Your task to perform on an android device: toggle notifications settings in the gmail app Image 0: 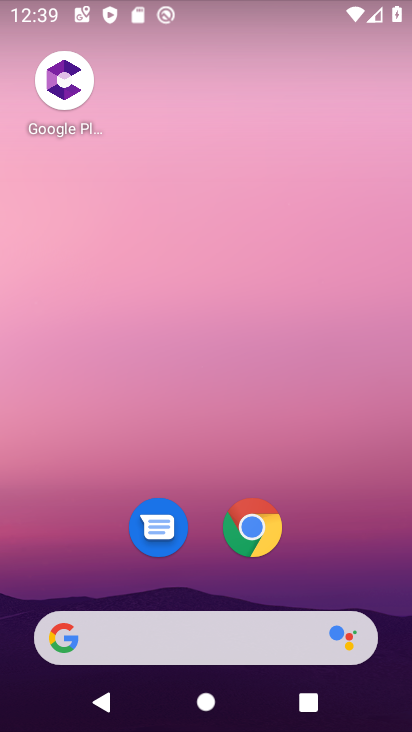
Step 0: drag from (351, 559) to (359, 58)
Your task to perform on an android device: toggle notifications settings in the gmail app Image 1: 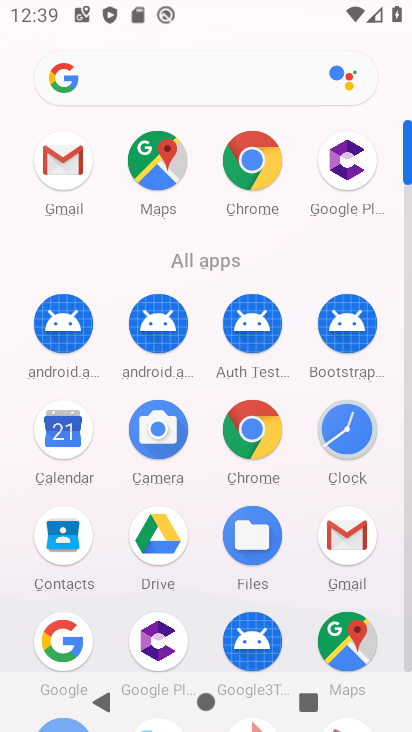
Step 1: click (364, 557)
Your task to perform on an android device: toggle notifications settings in the gmail app Image 2: 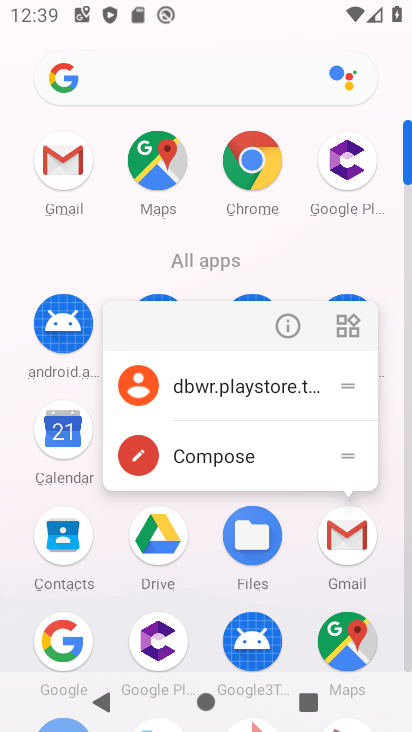
Step 2: click (356, 526)
Your task to perform on an android device: toggle notifications settings in the gmail app Image 3: 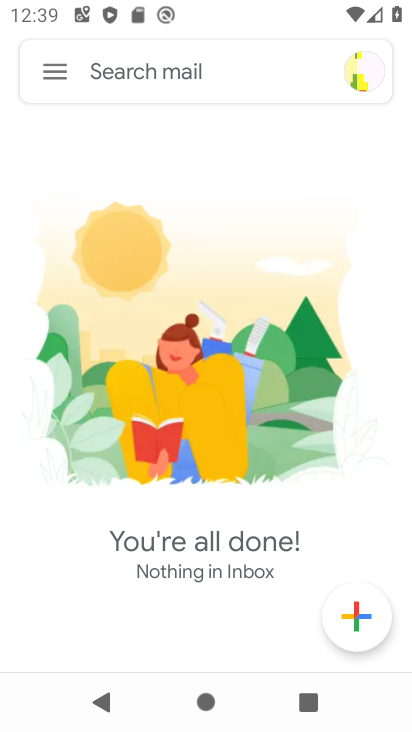
Step 3: click (49, 78)
Your task to perform on an android device: toggle notifications settings in the gmail app Image 4: 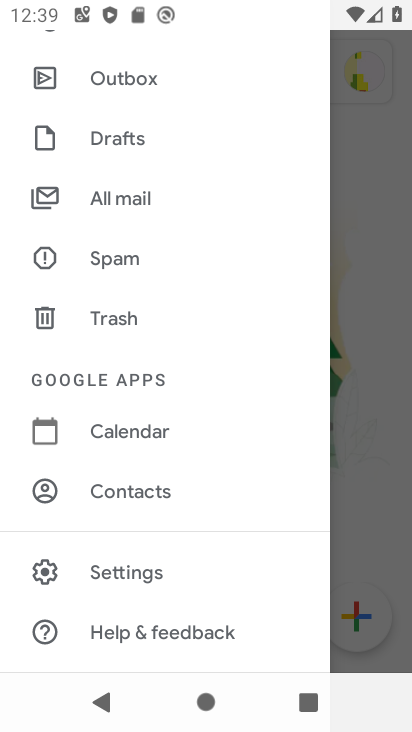
Step 4: drag from (266, 280) to (275, 434)
Your task to perform on an android device: toggle notifications settings in the gmail app Image 5: 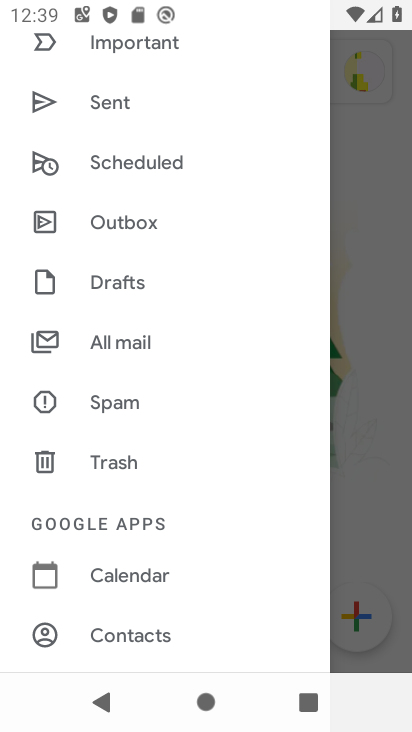
Step 5: drag from (286, 226) to (260, 431)
Your task to perform on an android device: toggle notifications settings in the gmail app Image 6: 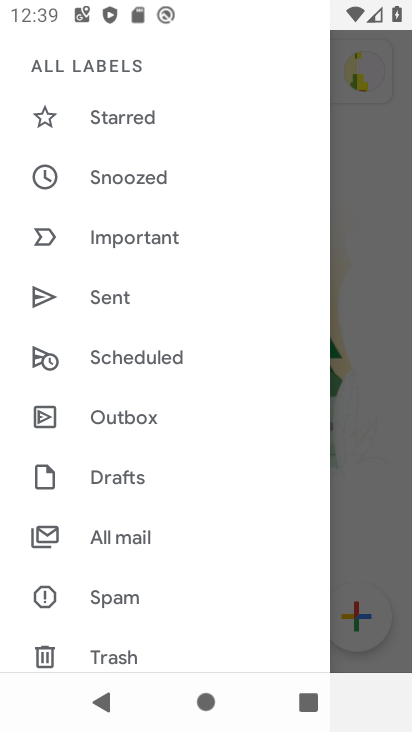
Step 6: drag from (263, 187) to (261, 406)
Your task to perform on an android device: toggle notifications settings in the gmail app Image 7: 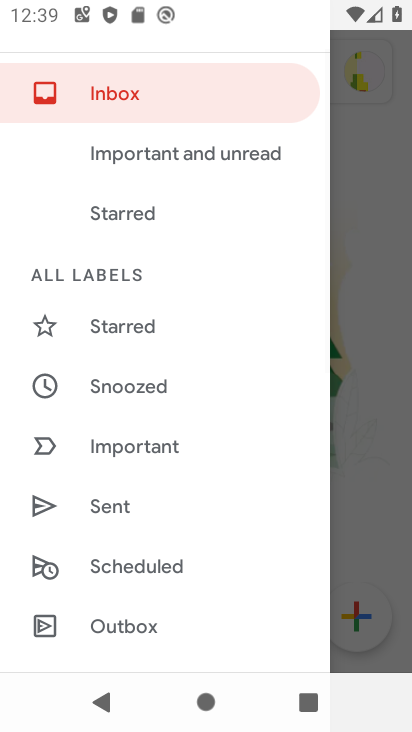
Step 7: drag from (283, 207) to (278, 410)
Your task to perform on an android device: toggle notifications settings in the gmail app Image 8: 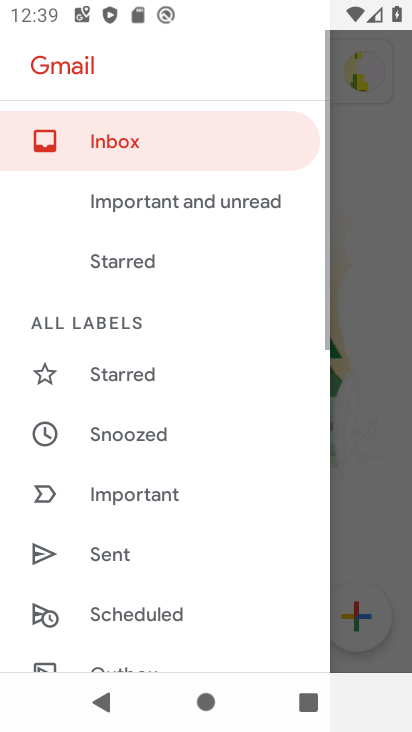
Step 8: drag from (265, 469) to (285, 274)
Your task to perform on an android device: toggle notifications settings in the gmail app Image 9: 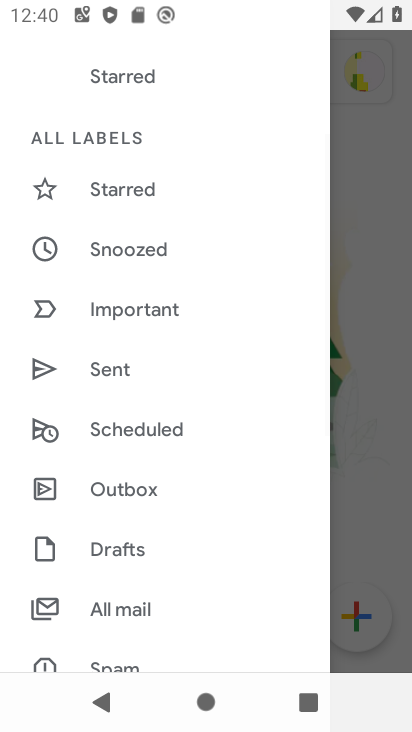
Step 9: drag from (274, 509) to (275, 318)
Your task to perform on an android device: toggle notifications settings in the gmail app Image 10: 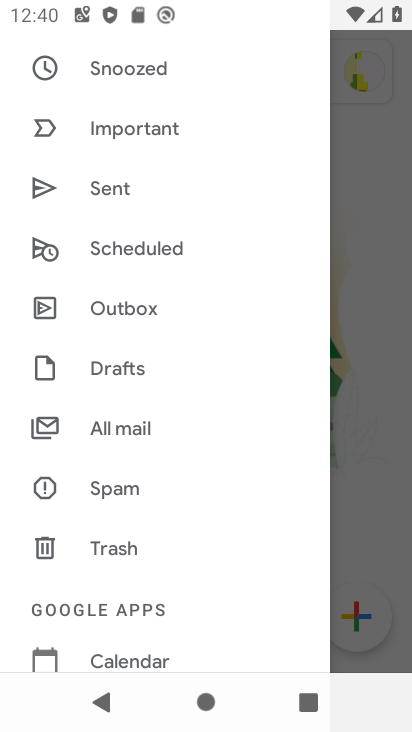
Step 10: drag from (274, 550) to (265, 356)
Your task to perform on an android device: toggle notifications settings in the gmail app Image 11: 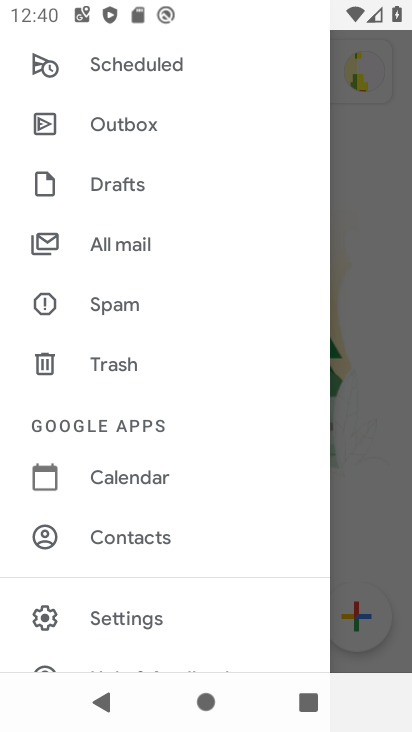
Step 11: drag from (246, 602) to (234, 375)
Your task to perform on an android device: toggle notifications settings in the gmail app Image 12: 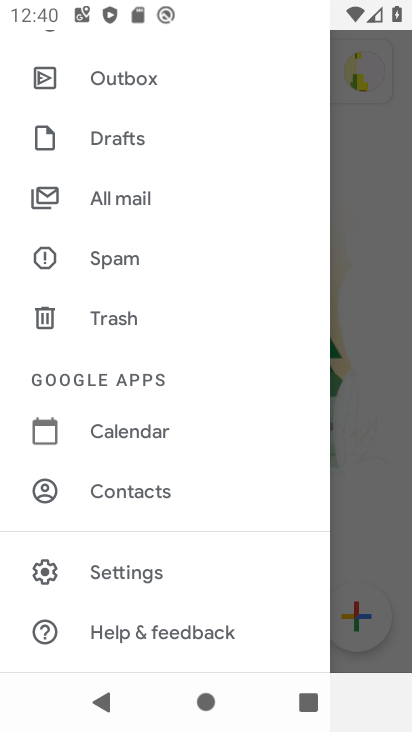
Step 12: click (139, 583)
Your task to perform on an android device: toggle notifications settings in the gmail app Image 13: 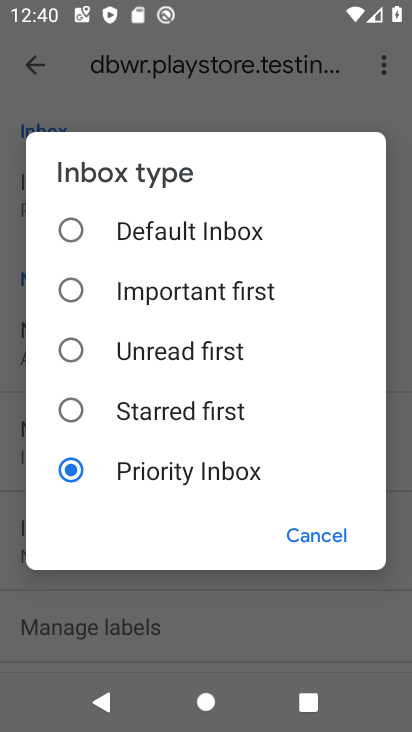
Step 13: click (301, 530)
Your task to perform on an android device: toggle notifications settings in the gmail app Image 14: 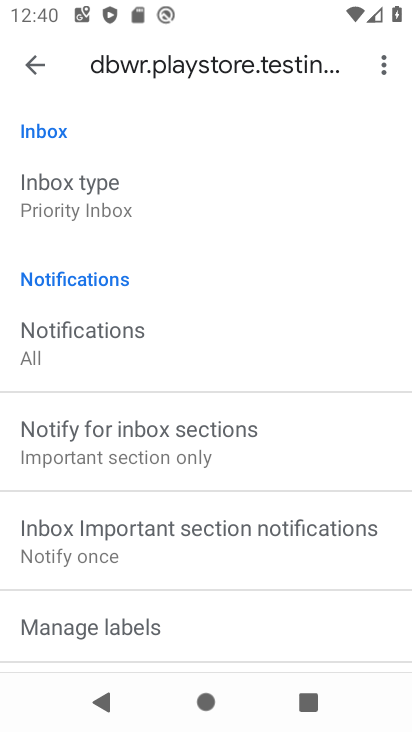
Step 14: drag from (286, 582) to (291, 379)
Your task to perform on an android device: toggle notifications settings in the gmail app Image 15: 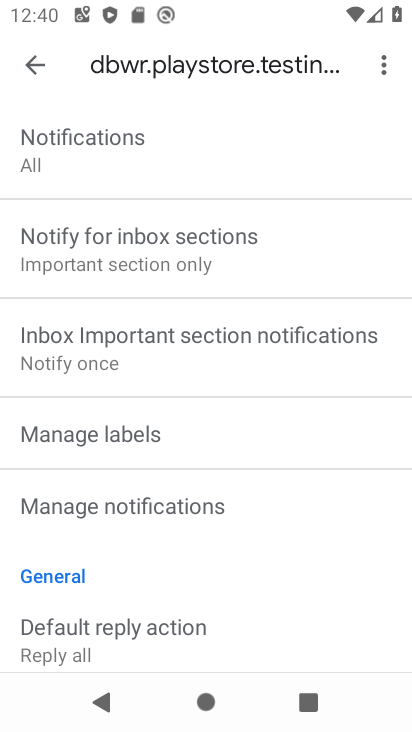
Step 15: drag from (289, 574) to (306, 294)
Your task to perform on an android device: toggle notifications settings in the gmail app Image 16: 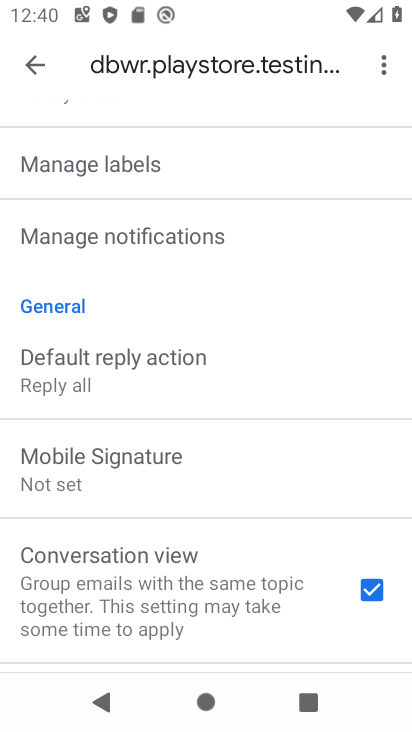
Step 16: click (197, 232)
Your task to perform on an android device: toggle notifications settings in the gmail app Image 17: 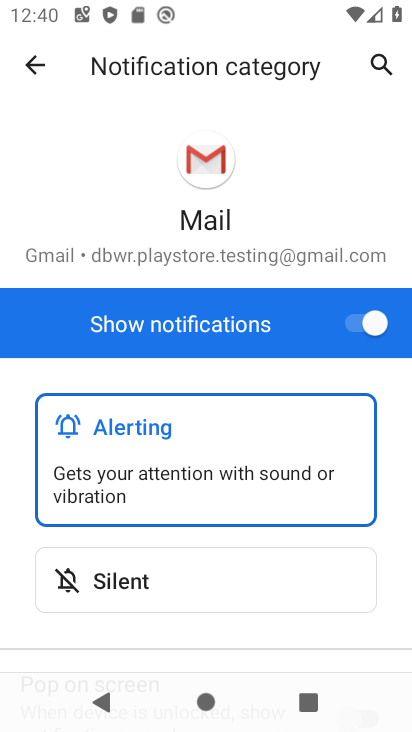
Step 17: click (385, 321)
Your task to perform on an android device: toggle notifications settings in the gmail app Image 18: 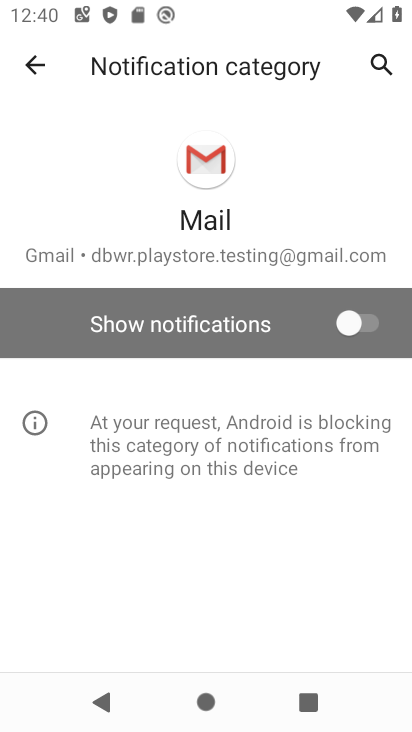
Step 18: task complete